Your task to perform on an android device: find snoozed emails in the gmail app Image 0: 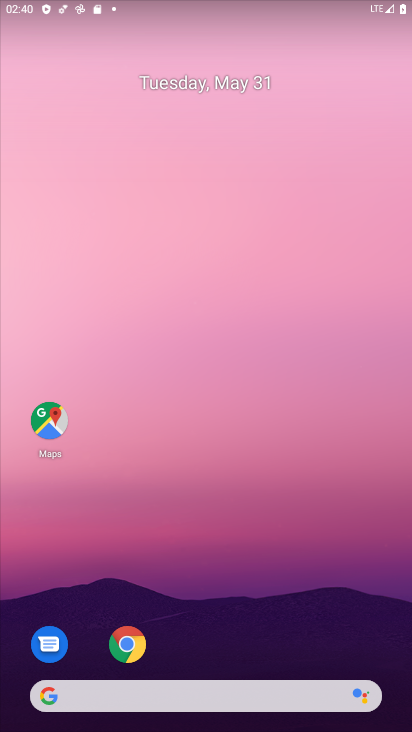
Step 0: drag from (323, 639) to (258, 98)
Your task to perform on an android device: find snoozed emails in the gmail app Image 1: 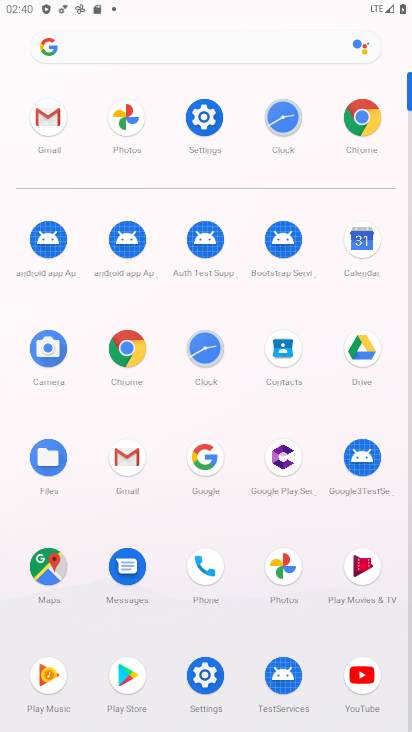
Step 1: click (121, 453)
Your task to perform on an android device: find snoozed emails in the gmail app Image 2: 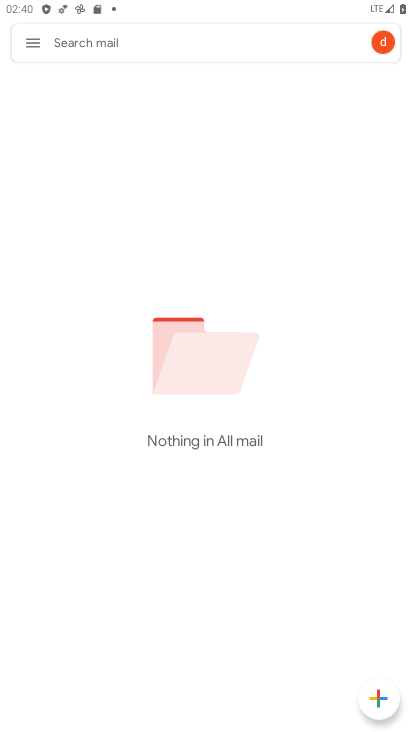
Step 2: click (36, 44)
Your task to perform on an android device: find snoozed emails in the gmail app Image 3: 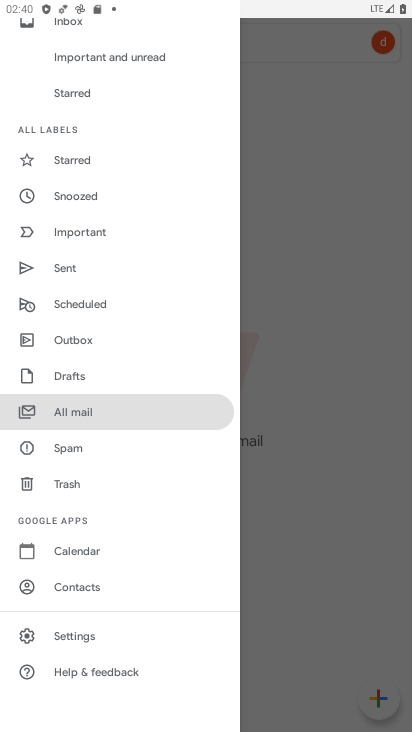
Step 3: click (98, 198)
Your task to perform on an android device: find snoozed emails in the gmail app Image 4: 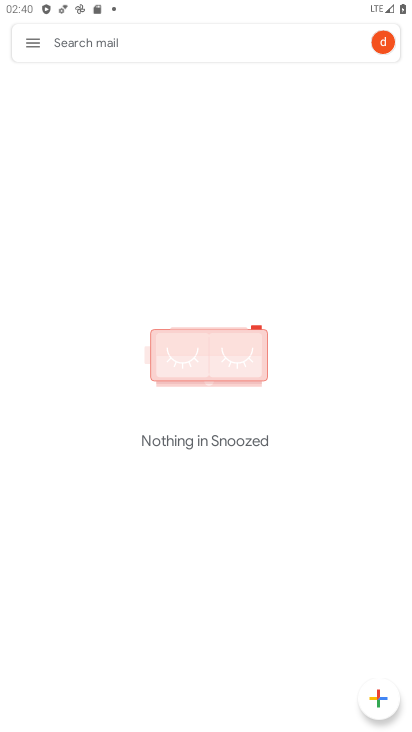
Step 4: task complete